Your task to perform on an android device: change alarm snooze length Image 0: 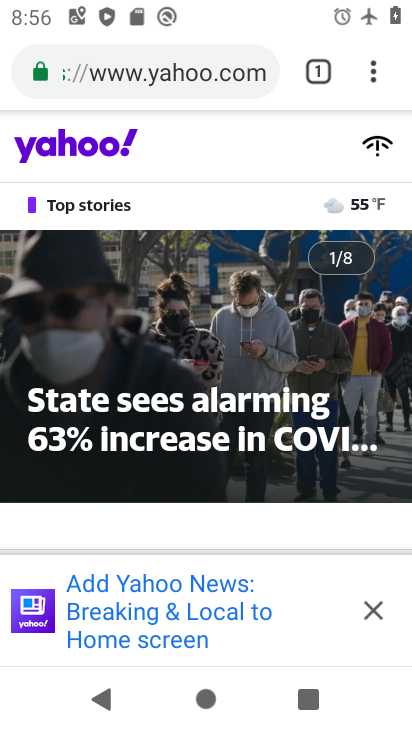
Step 0: press home button
Your task to perform on an android device: change alarm snooze length Image 1: 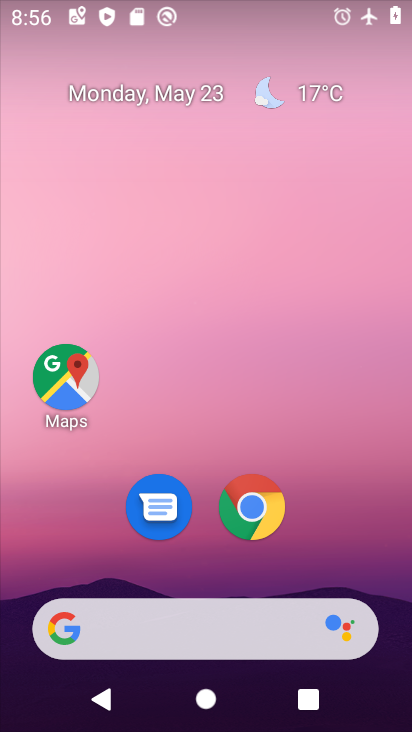
Step 1: drag from (385, 600) to (347, 13)
Your task to perform on an android device: change alarm snooze length Image 2: 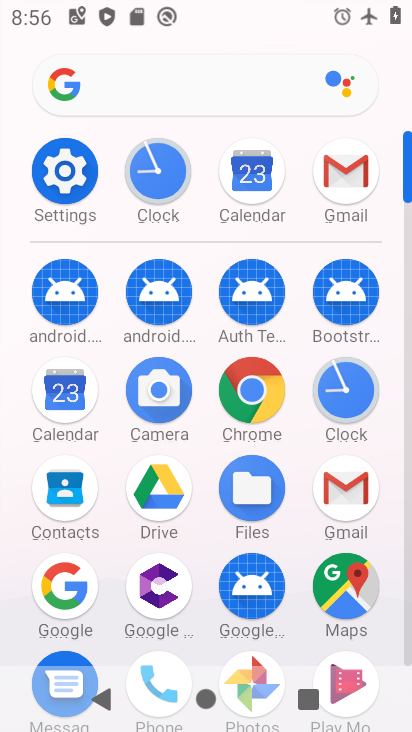
Step 2: click (148, 177)
Your task to perform on an android device: change alarm snooze length Image 3: 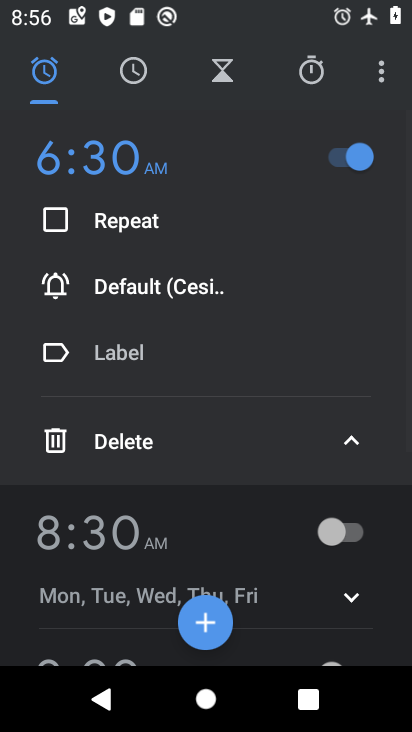
Step 3: click (380, 68)
Your task to perform on an android device: change alarm snooze length Image 4: 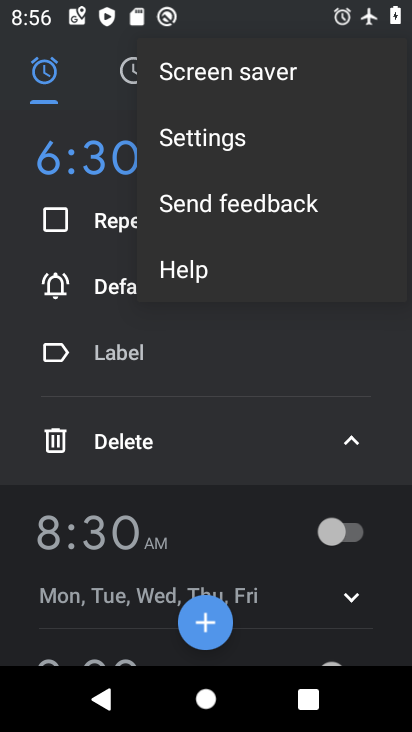
Step 4: click (213, 149)
Your task to perform on an android device: change alarm snooze length Image 5: 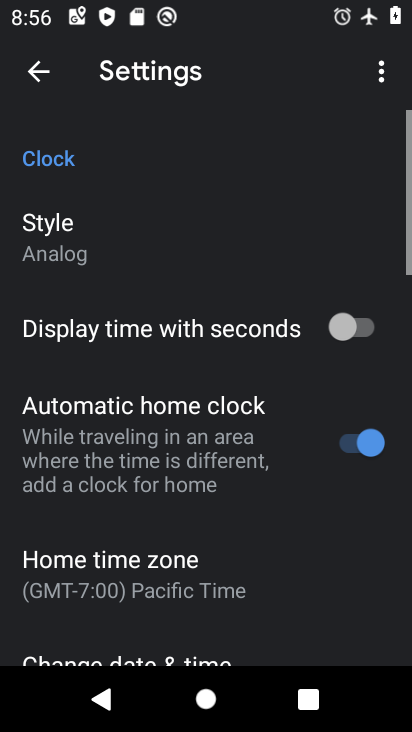
Step 5: drag from (139, 519) to (175, 127)
Your task to perform on an android device: change alarm snooze length Image 6: 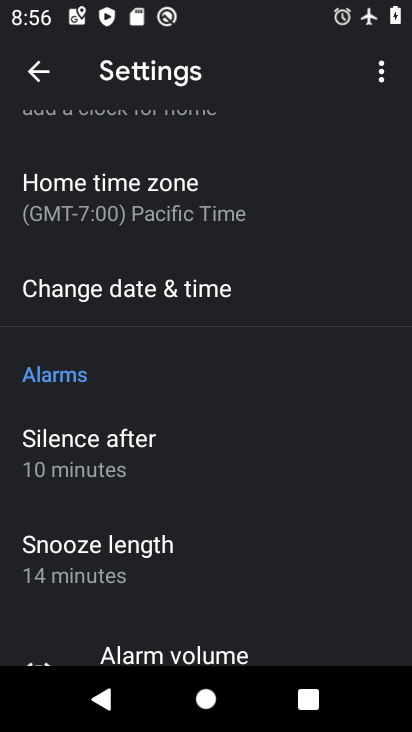
Step 6: click (74, 554)
Your task to perform on an android device: change alarm snooze length Image 7: 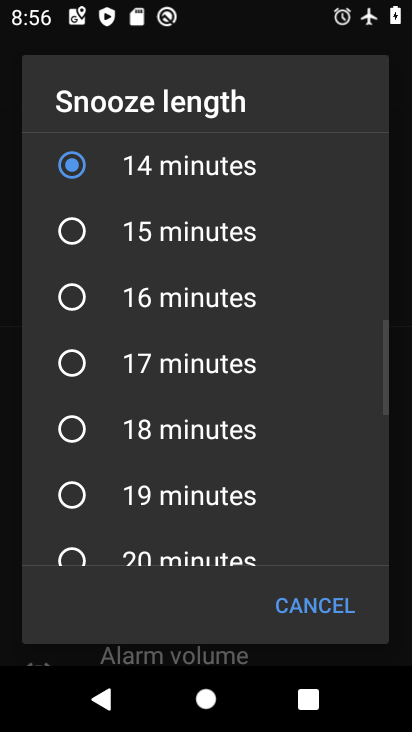
Step 7: drag from (292, 269) to (246, 630)
Your task to perform on an android device: change alarm snooze length Image 8: 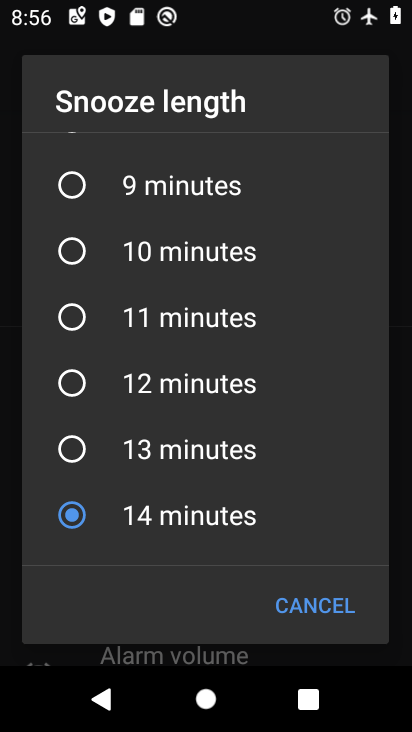
Step 8: click (80, 248)
Your task to perform on an android device: change alarm snooze length Image 9: 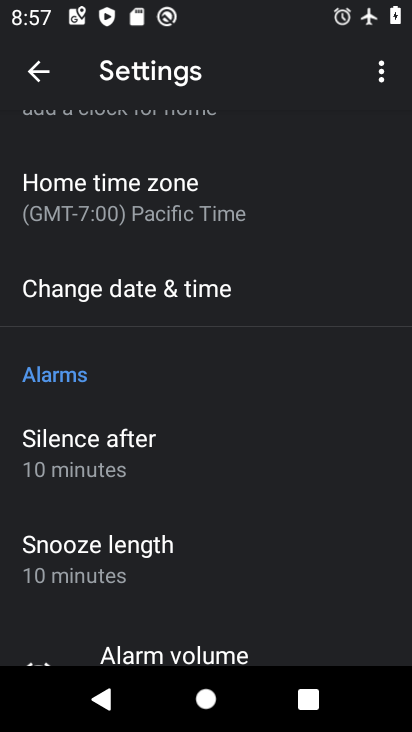
Step 9: task complete